Your task to perform on an android device: visit the assistant section in the google photos Image 0: 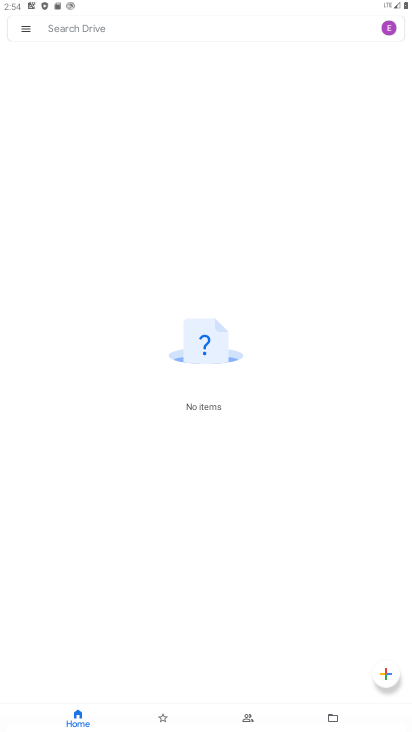
Step 0: drag from (200, 679) to (207, 271)
Your task to perform on an android device: visit the assistant section in the google photos Image 1: 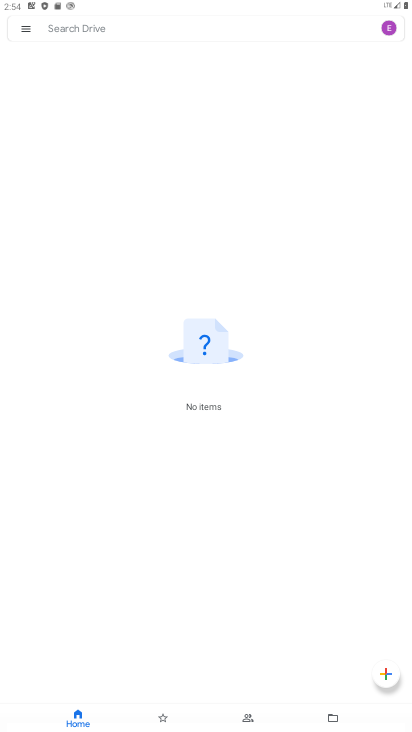
Step 1: press home button
Your task to perform on an android device: visit the assistant section in the google photos Image 2: 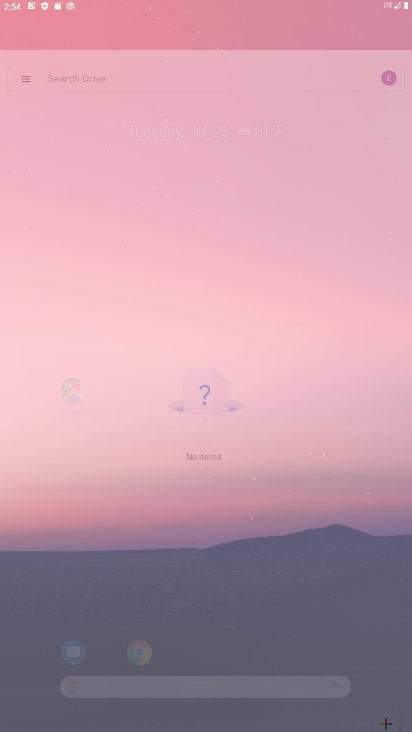
Step 2: click (239, 188)
Your task to perform on an android device: visit the assistant section in the google photos Image 3: 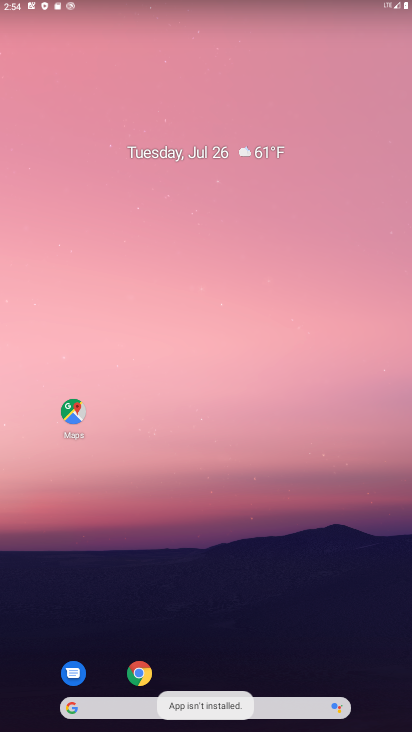
Step 3: drag from (199, 675) to (276, 181)
Your task to perform on an android device: visit the assistant section in the google photos Image 4: 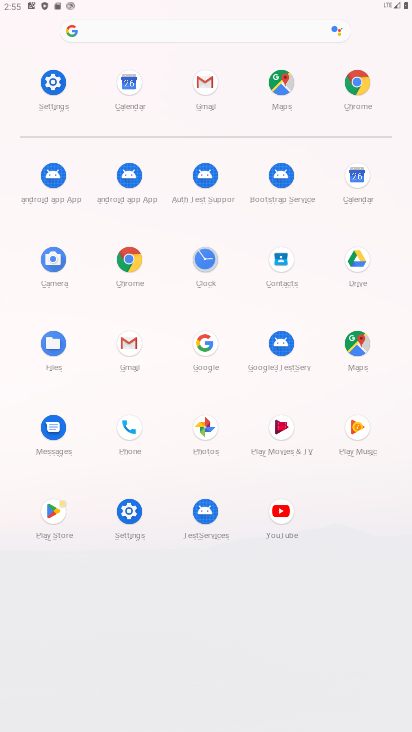
Step 4: click (204, 430)
Your task to perform on an android device: visit the assistant section in the google photos Image 5: 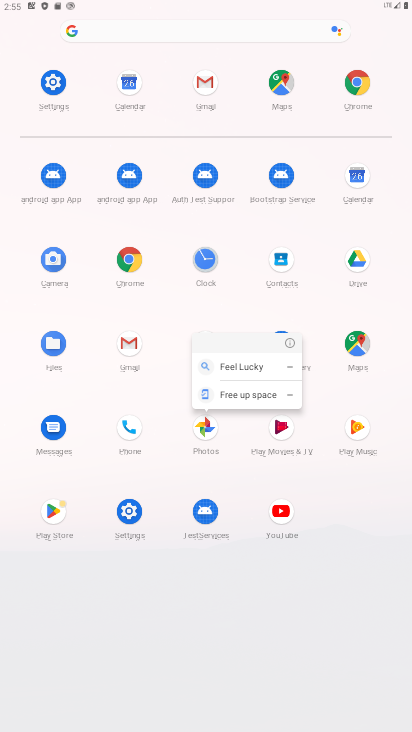
Step 5: click (292, 343)
Your task to perform on an android device: visit the assistant section in the google photos Image 6: 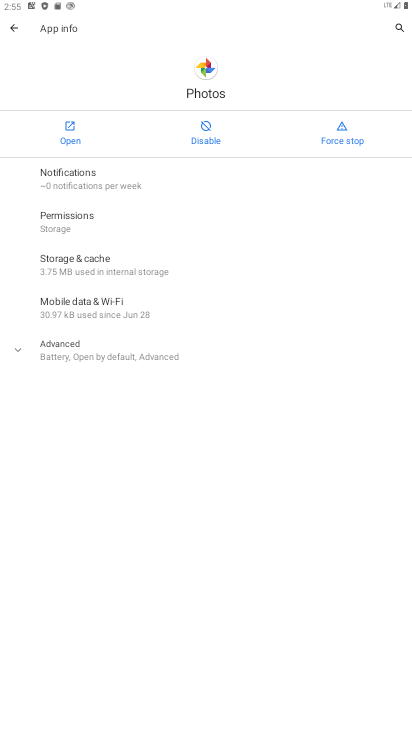
Step 6: click (70, 133)
Your task to perform on an android device: visit the assistant section in the google photos Image 7: 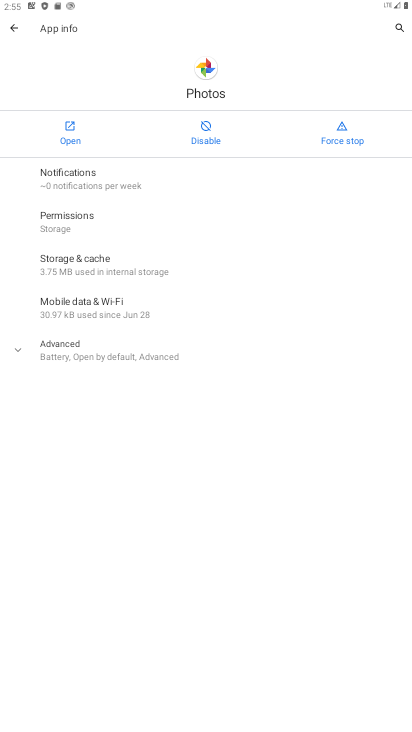
Step 7: click (70, 133)
Your task to perform on an android device: visit the assistant section in the google photos Image 8: 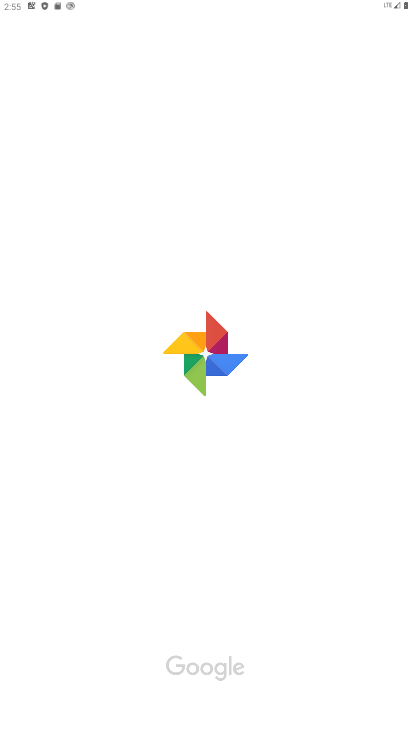
Step 8: drag from (238, 605) to (262, 344)
Your task to perform on an android device: visit the assistant section in the google photos Image 9: 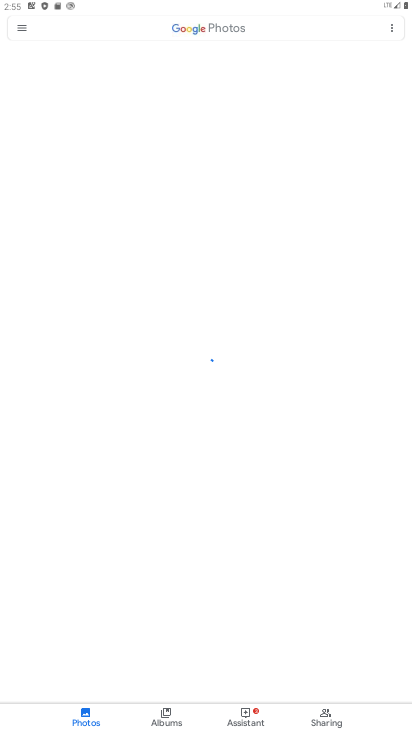
Step 9: click (231, 708)
Your task to perform on an android device: visit the assistant section in the google photos Image 10: 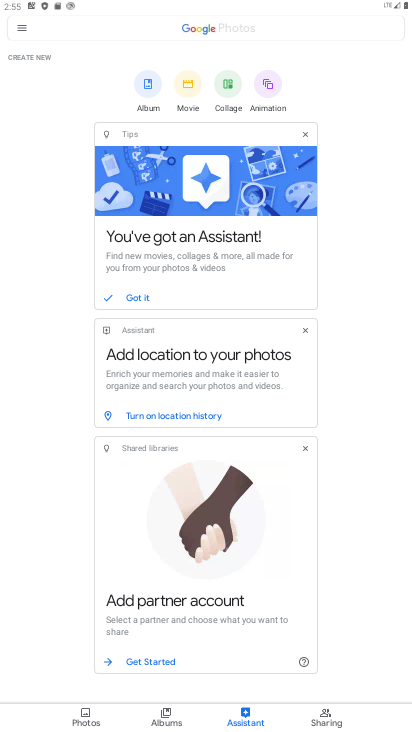
Step 10: task complete